Your task to perform on an android device: clear all cookies in the chrome app Image 0: 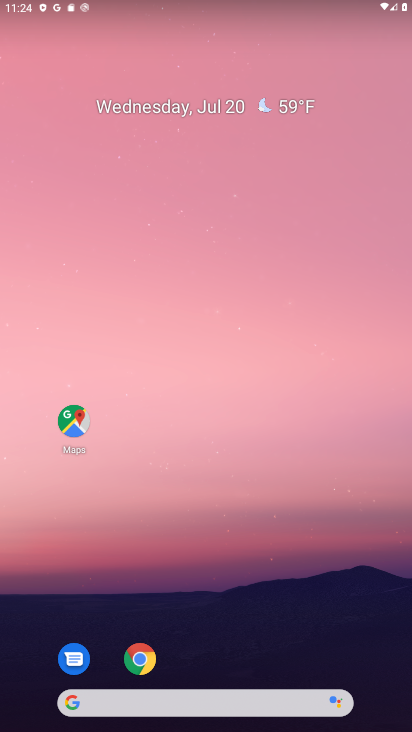
Step 0: click (155, 658)
Your task to perform on an android device: clear all cookies in the chrome app Image 1: 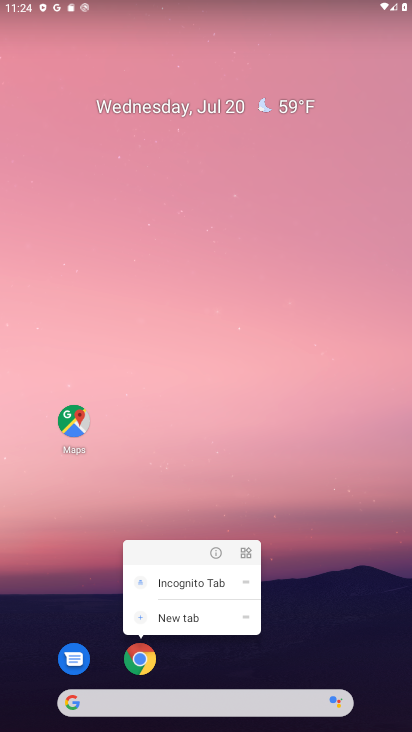
Step 1: click (142, 661)
Your task to perform on an android device: clear all cookies in the chrome app Image 2: 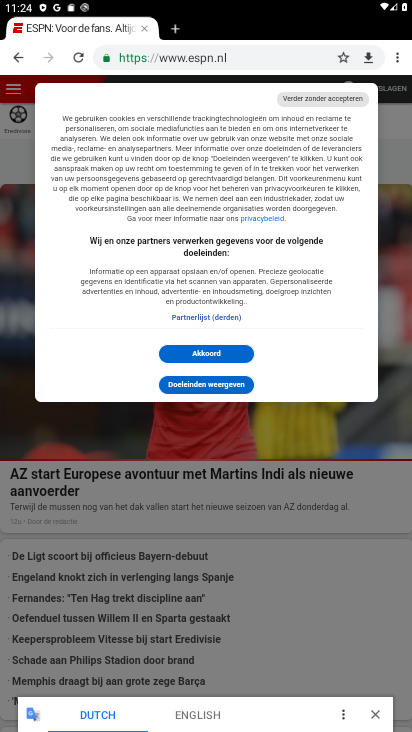
Step 2: click (394, 64)
Your task to perform on an android device: clear all cookies in the chrome app Image 3: 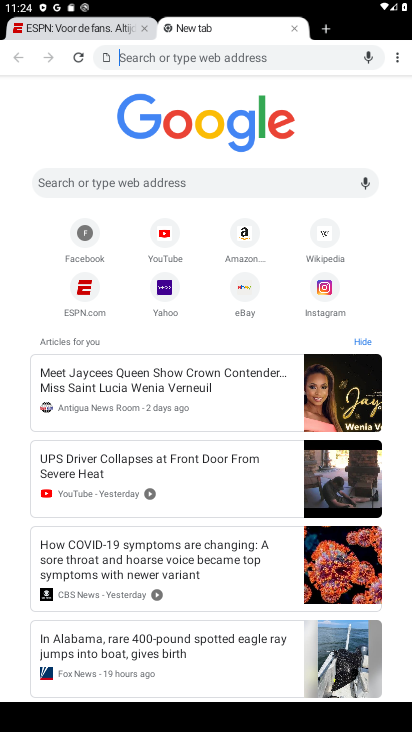
Step 3: click (396, 58)
Your task to perform on an android device: clear all cookies in the chrome app Image 4: 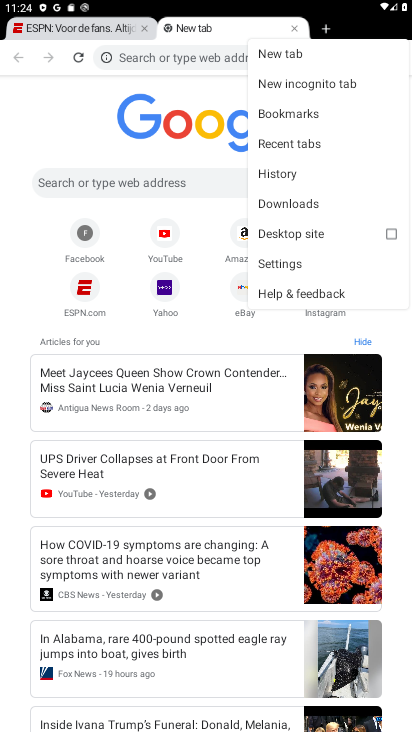
Step 4: click (260, 179)
Your task to perform on an android device: clear all cookies in the chrome app Image 5: 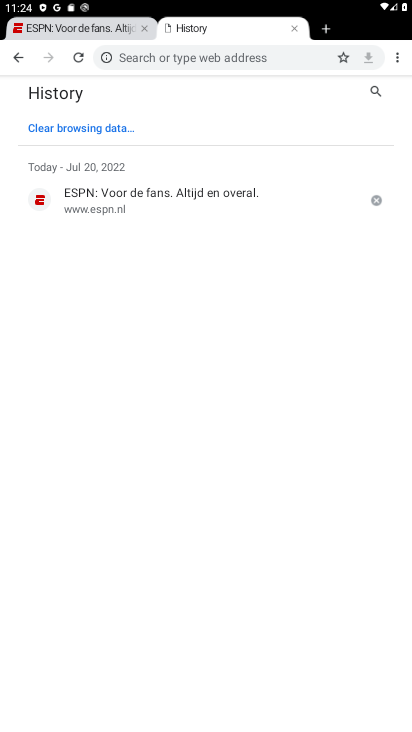
Step 5: click (77, 129)
Your task to perform on an android device: clear all cookies in the chrome app Image 6: 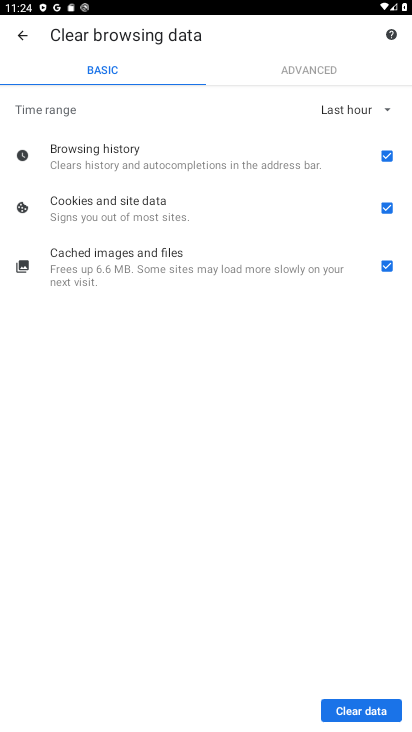
Step 6: click (389, 208)
Your task to perform on an android device: clear all cookies in the chrome app Image 7: 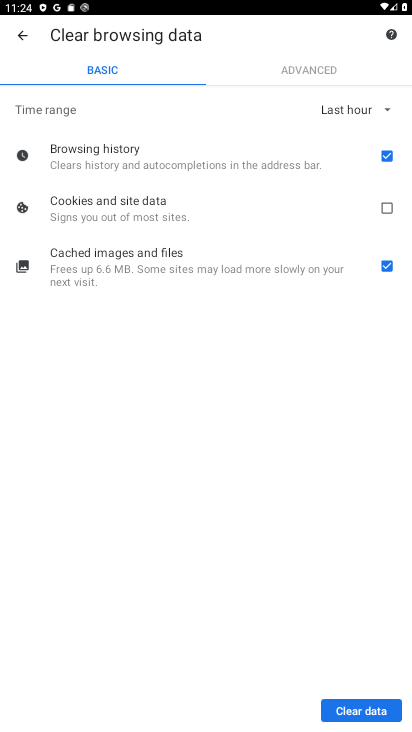
Step 7: click (389, 266)
Your task to perform on an android device: clear all cookies in the chrome app Image 8: 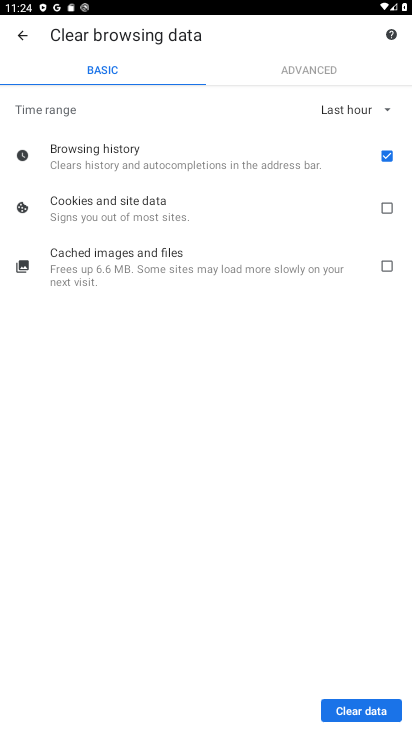
Step 8: click (374, 709)
Your task to perform on an android device: clear all cookies in the chrome app Image 9: 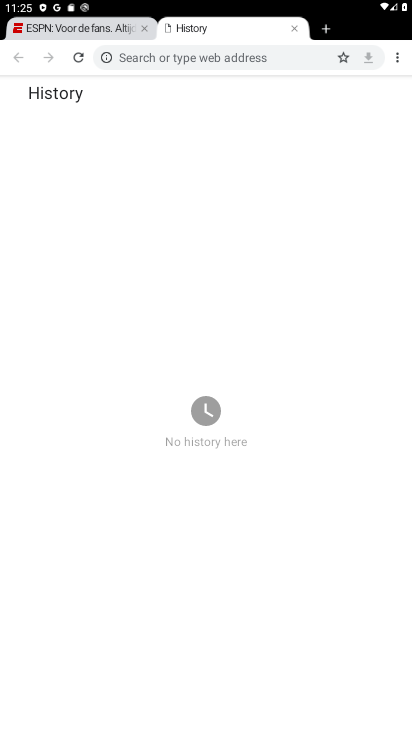
Step 9: task complete